Your task to perform on an android device: What's the weather? Image 0: 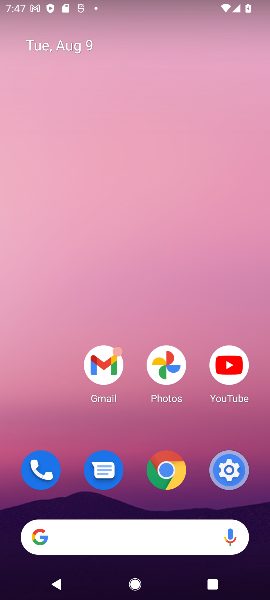
Step 0: click (256, 182)
Your task to perform on an android device: What's the weather? Image 1: 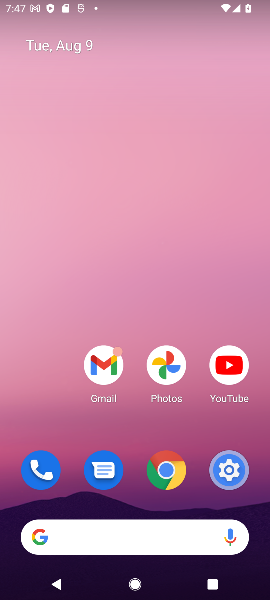
Step 1: click (77, 534)
Your task to perform on an android device: What's the weather? Image 2: 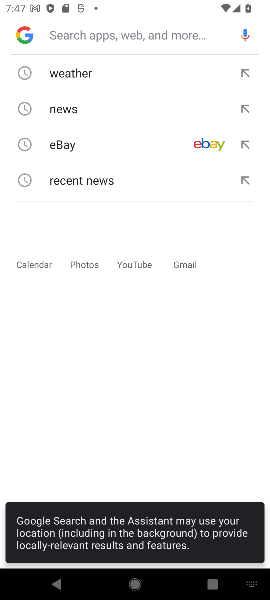
Step 2: click (85, 71)
Your task to perform on an android device: What's the weather? Image 3: 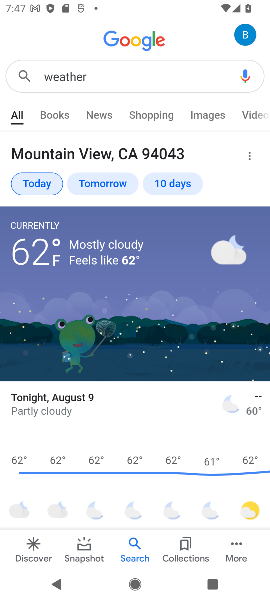
Step 3: task complete